Your task to perform on an android device: turn pop-ups on in chrome Image 0: 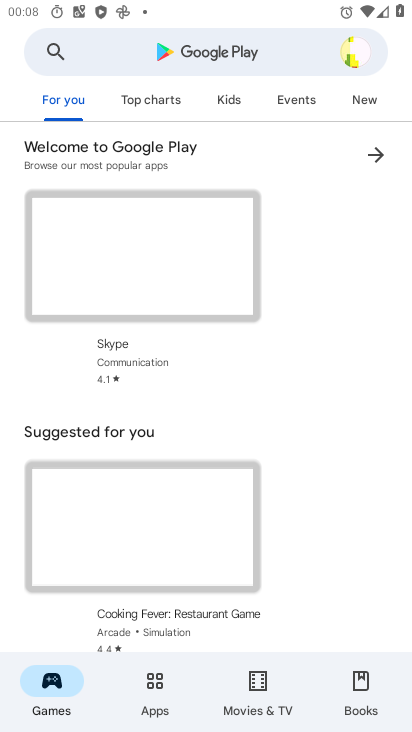
Step 0: press home button
Your task to perform on an android device: turn pop-ups on in chrome Image 1: 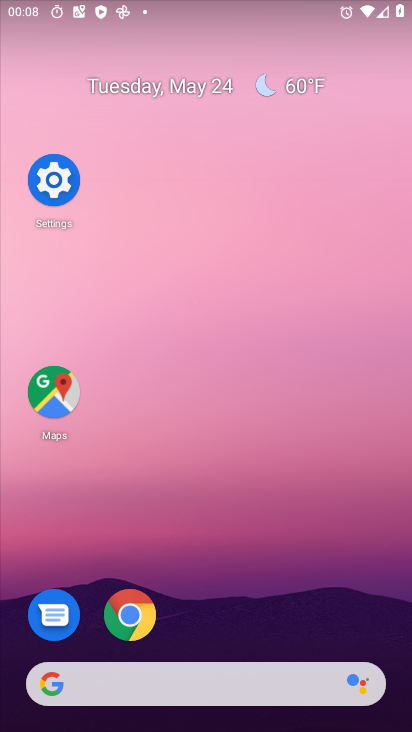
Step 1: click (137, 616)
Your task to perform on an android device: turn pop-ups on in chrome Image 2: 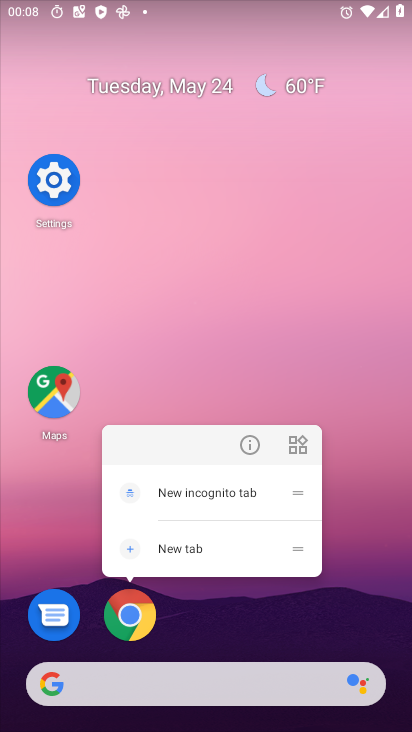
Step 2: click (131, 613)
Your task to perform on an android device: turn pop-ups on in chrome Image 3: 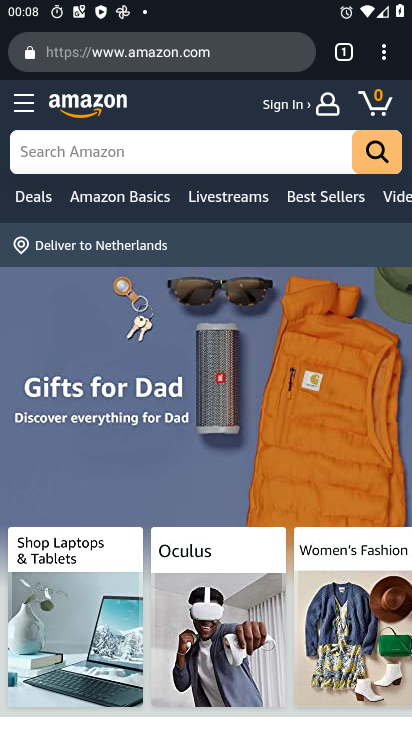
Step 3: click (378, 55)
Your task to perform on an android device: turn pop-ups on in chrome Image 4: 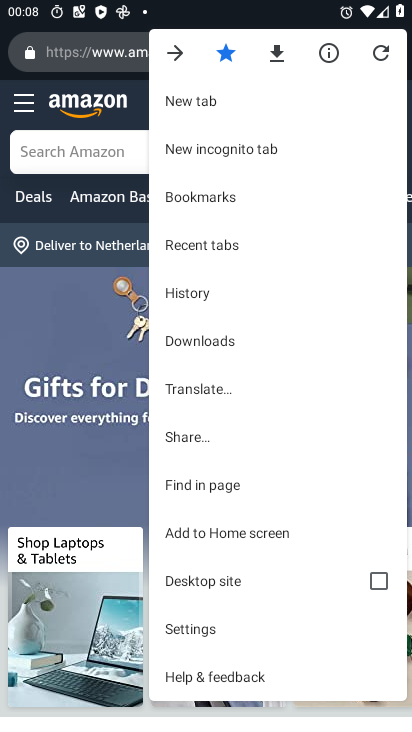
Step 4: click (225, 624)
Your task to perform on an android device: turn pop-ups on in chrome Image 5: 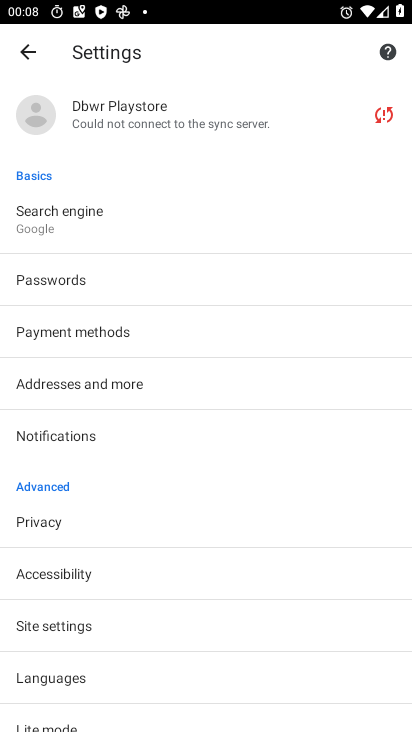
Step 5: drag from (177, 607) to (156, 442)
Your task to perform on an android device: turn pop-ups on in chrome Image 6: 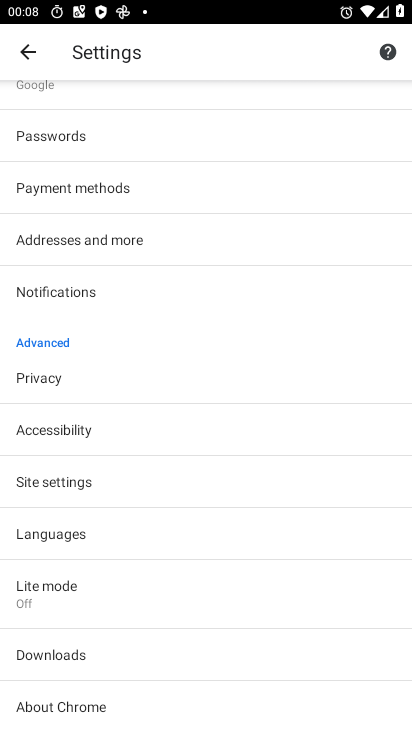
Step 6: click (73, 478)
Your task to perform on an android device: turn pop-ups on in chrome Image 7: 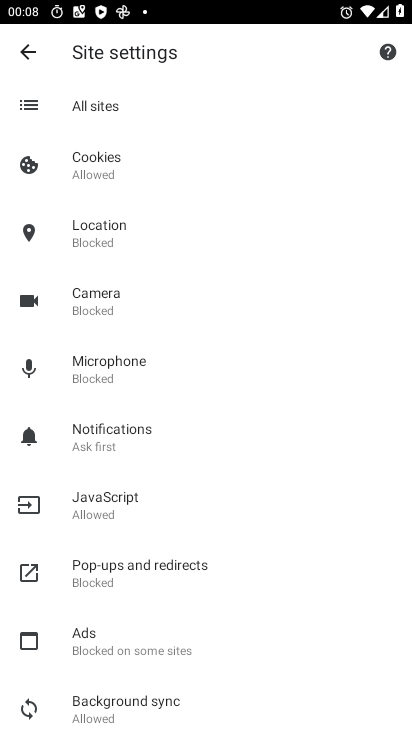
Step 7: click (166, 568)
Your task to perform on an android device: turn pop-ups on in chrome Image 8: 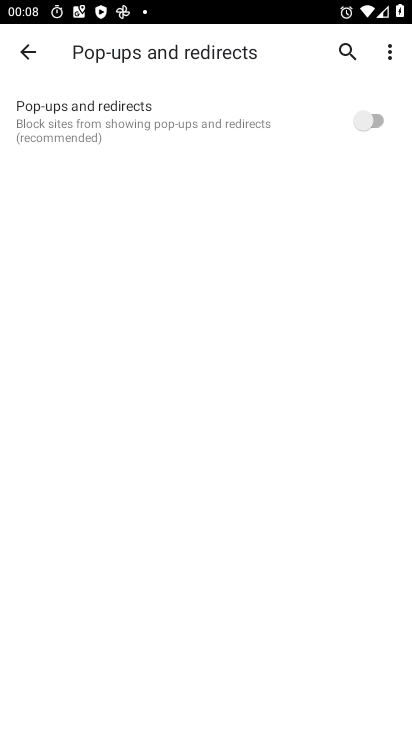
Step 8: click (367, 110)
Your task to perform on an android device: turn pop-ups on in chrome Image 9: 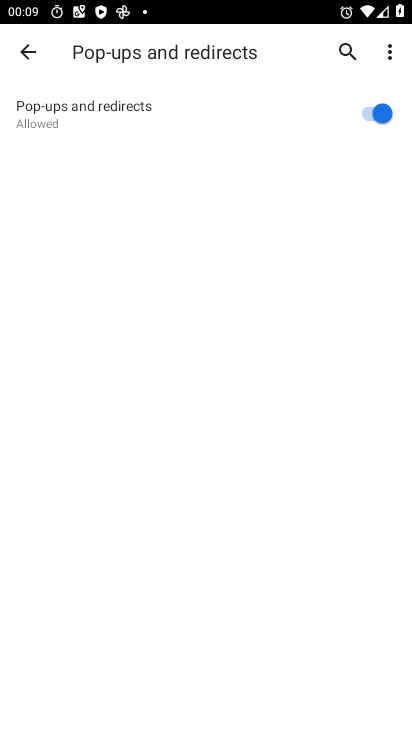
Step 9: task complete